Your task to perform on an android device: What's the weather going to be this weekend? Image 0: 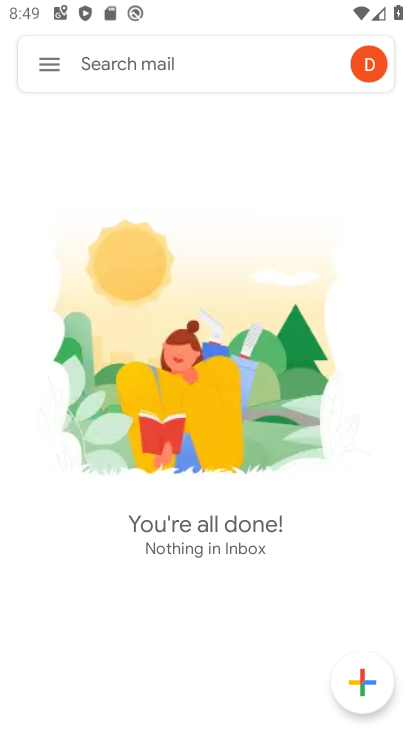
Step 0: press home button
Your task to perform on an android device: What's the weather going to be this weekend? Image 1: 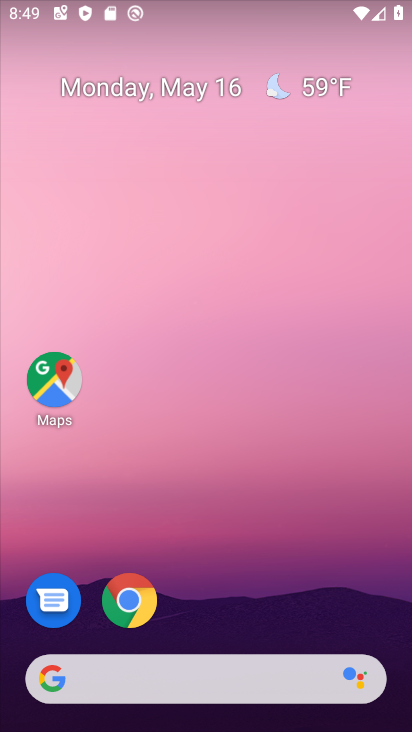
Step 1: drag from (156, 641) to (240, 273)
Your task to perform on an android device: What's the weather going to be this weekend? Image 2: 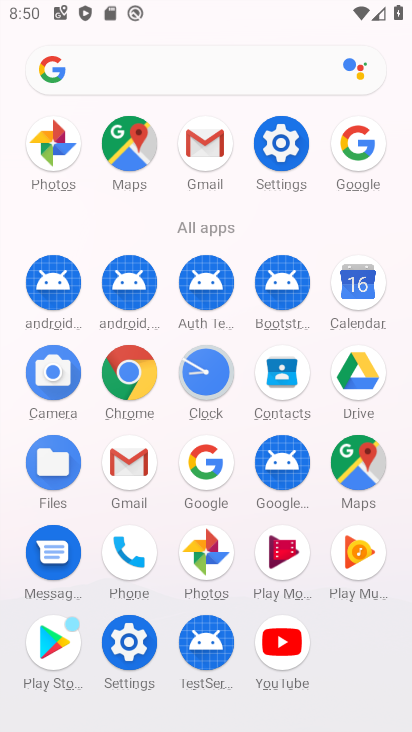
Step 2: click (195, 472)
Your task to perform on an android device: What's the weather going to be this weekend? Image 3: 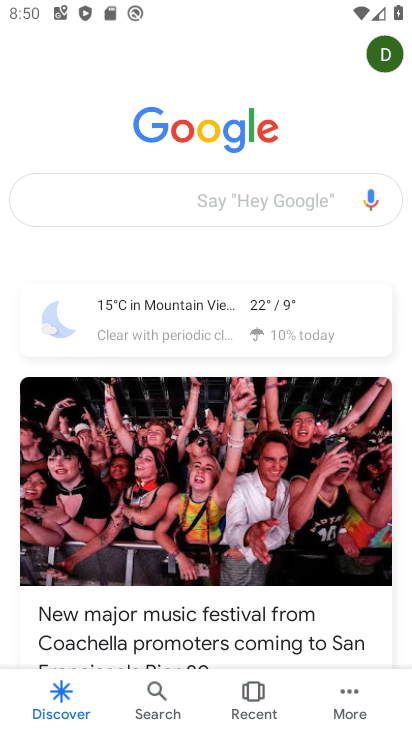
Step 3: click (134, 196)
Your task to perform on an android device: What's the weather going to be this weekend? Image 4: 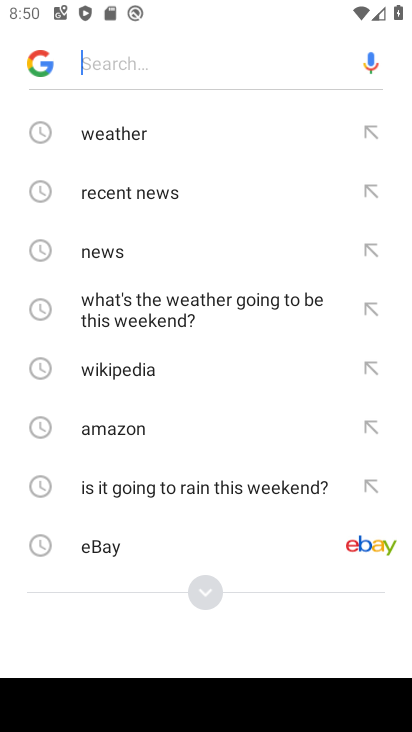
Step 4: click (136, 316)
Your task to perform on an android device: What's the weather going to be this weekend? Image 5: 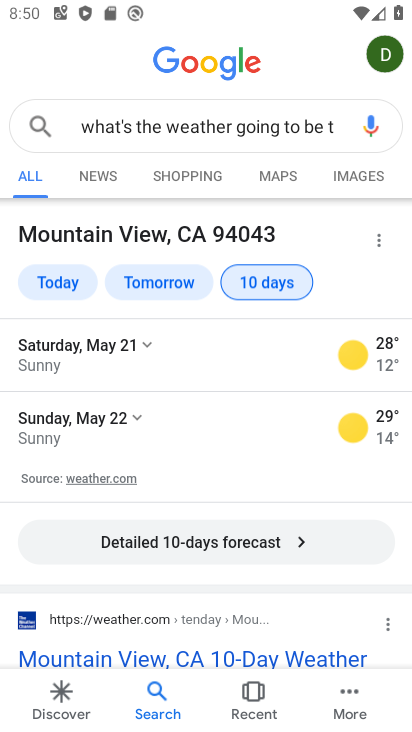
Step 5: click (210, 542)
Your task to perform on an android device: What's the weather going to be this weekend? Image 6: 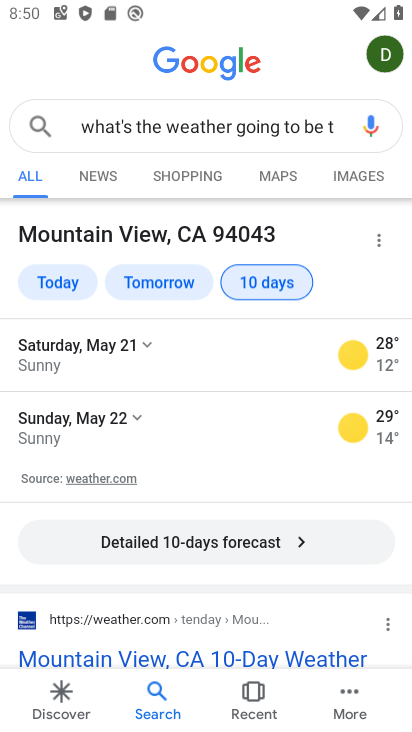
Step 6: click (284, 280)
Your task to perform on an android device: What's the weather going to be this weekend? Image 7: 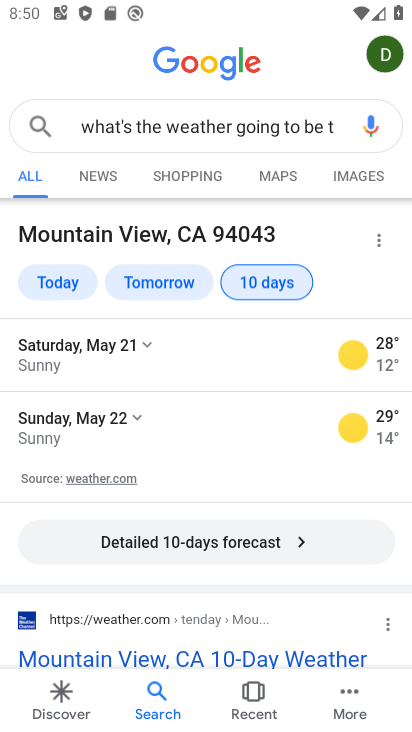
Step 7: drag from (276, 461) to (310, 217)
Your task to perform on an android device: What's the weather going to be this weekend? Image 8: 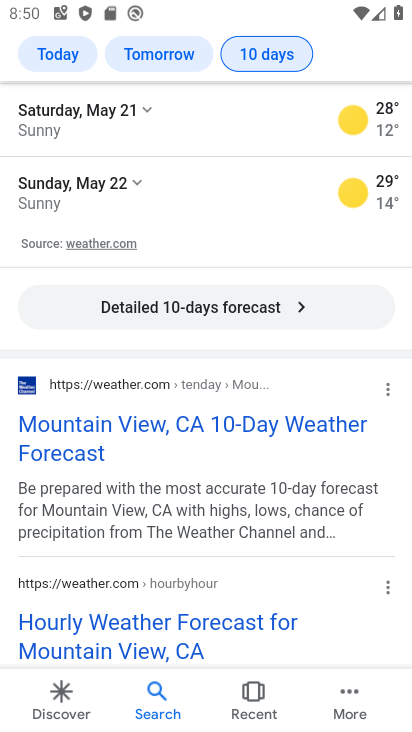
Step 8: click (246, 314)
Your task to perform on an android device: What's the weather going to be this weekend? Image 9: 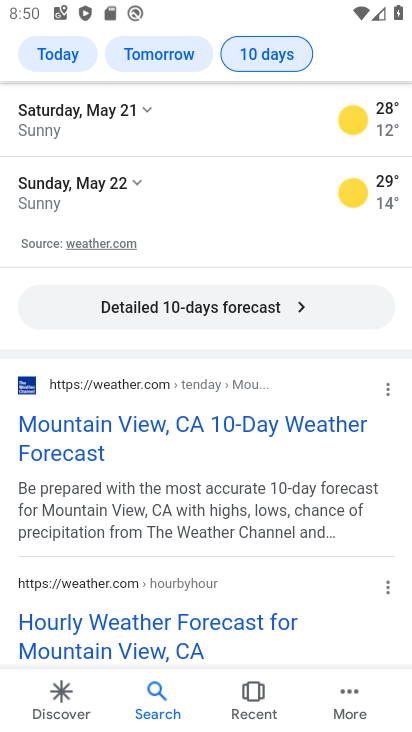
Step 9: click (306, 308)
Your task to perform on an android device: What's the weather going to be this weekend? Image 10: 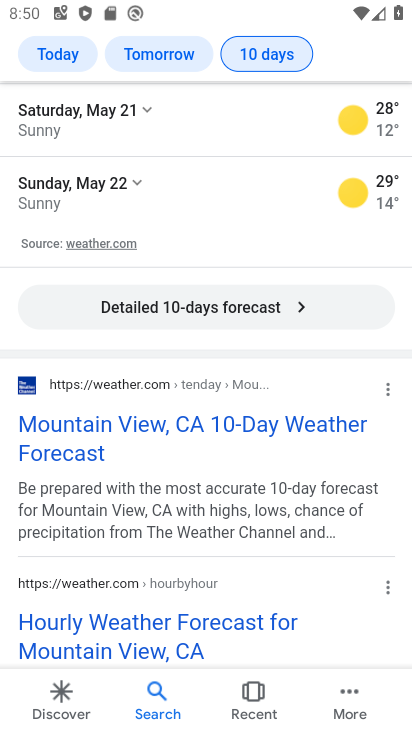
Step 10: drag from (299, 305) to (409, 318)
Your task to perform on an android device: What's the weather going to be this weekend? Image 11: 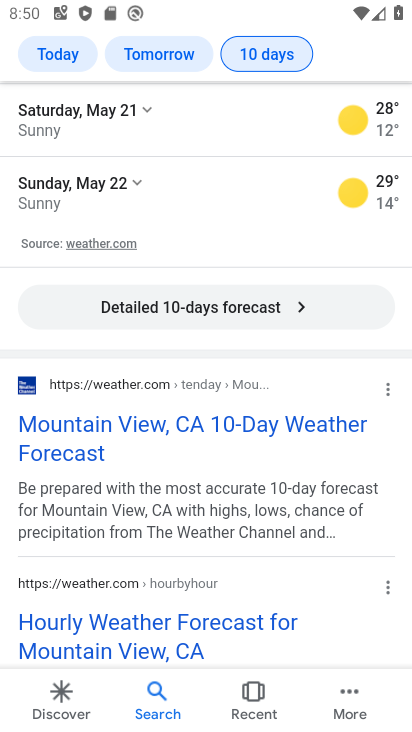
Step 11: click (347, 302)
Your task to perform on an android device: What's the weather going to be this weekend? Image 12: 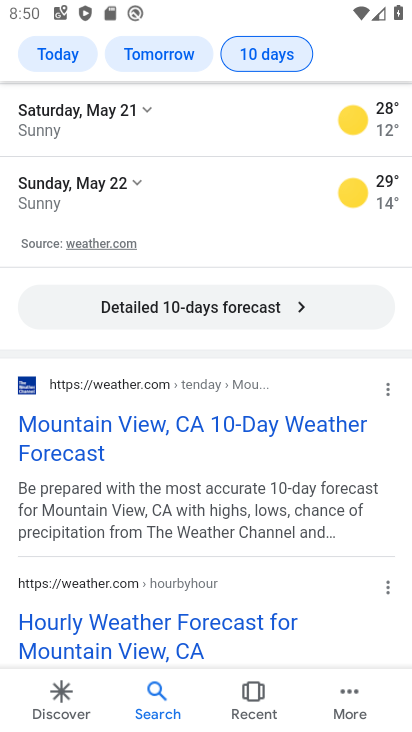
Step 12: task complete